Your task to perform on an android device: Show me productivity apps on the Play Store Image 0: 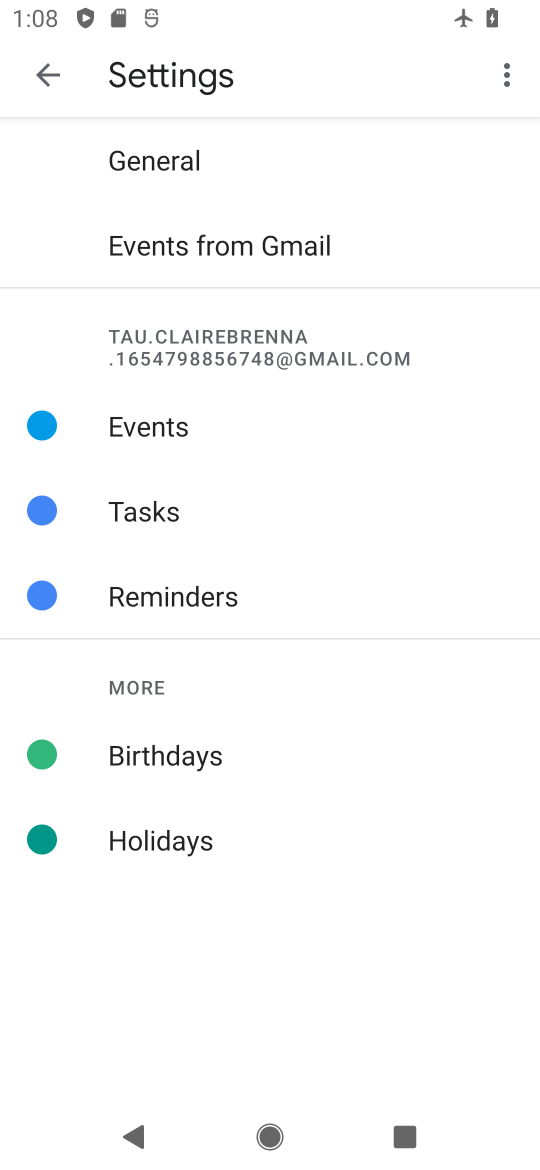
Step 0: press back button
Your task to perform on an android device: Show me productivity apps on the Play Store Image 1: 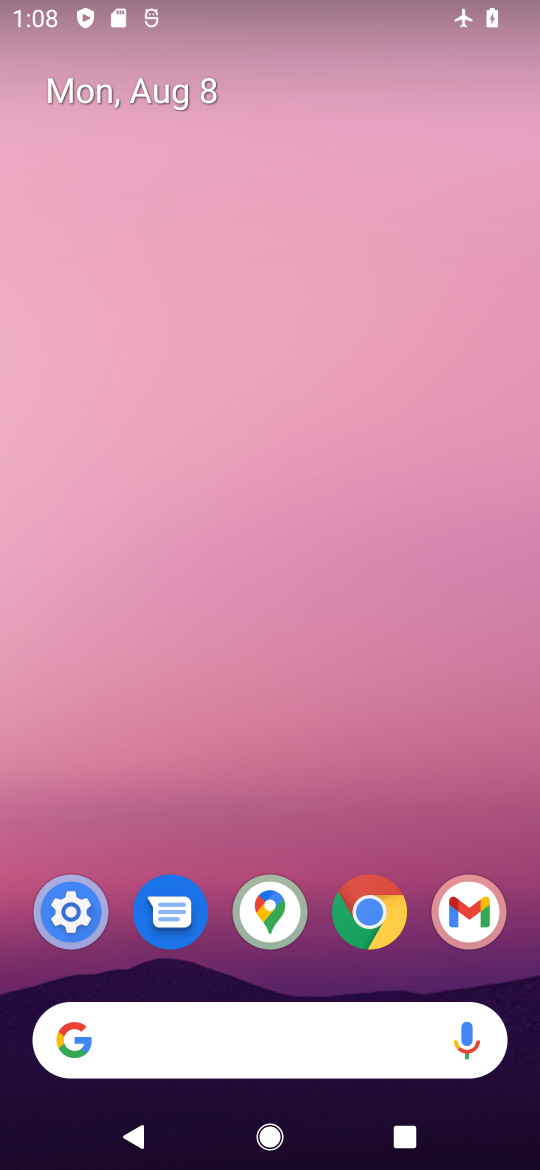
Step 1: drag from (253, 971) to (422, 26)
Your task to perform on an android device: Show me productivity apps on the Play Store Image 2: 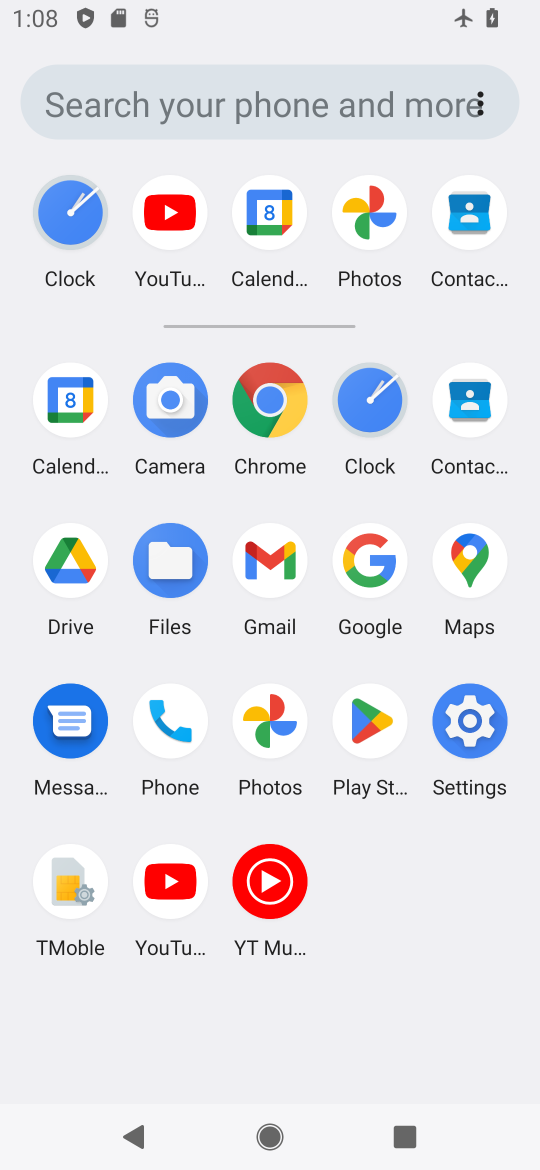
Step 2: click (354, 731)
Your task to perform on an android device: Show me productivity apps on the Play Store Image 3: 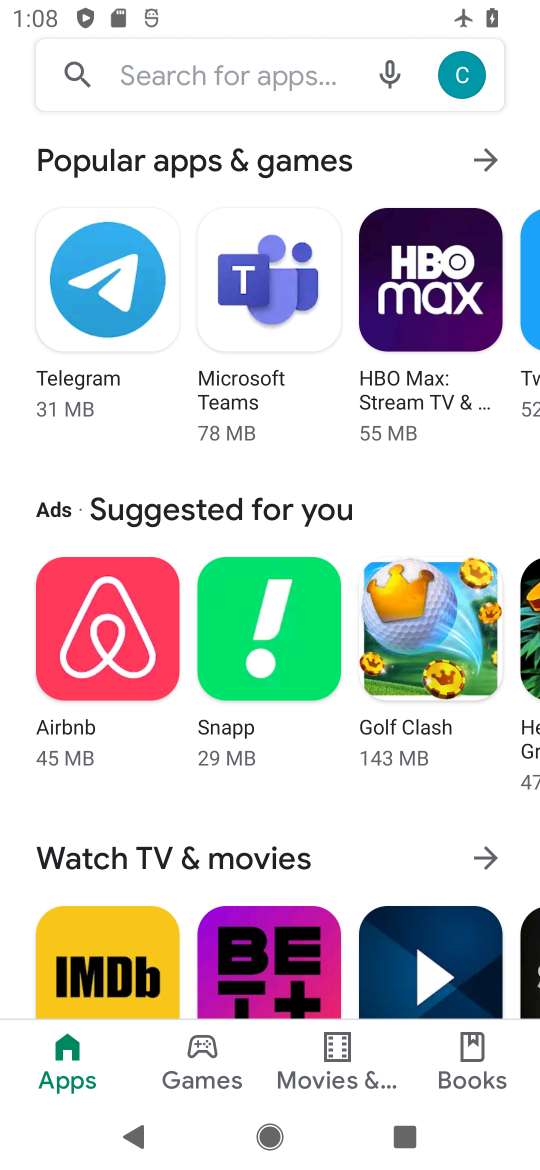
Step 3: click (78, 1058)
Your task to perform on an android device: Show me productivity apps on the Play Store Image 4: 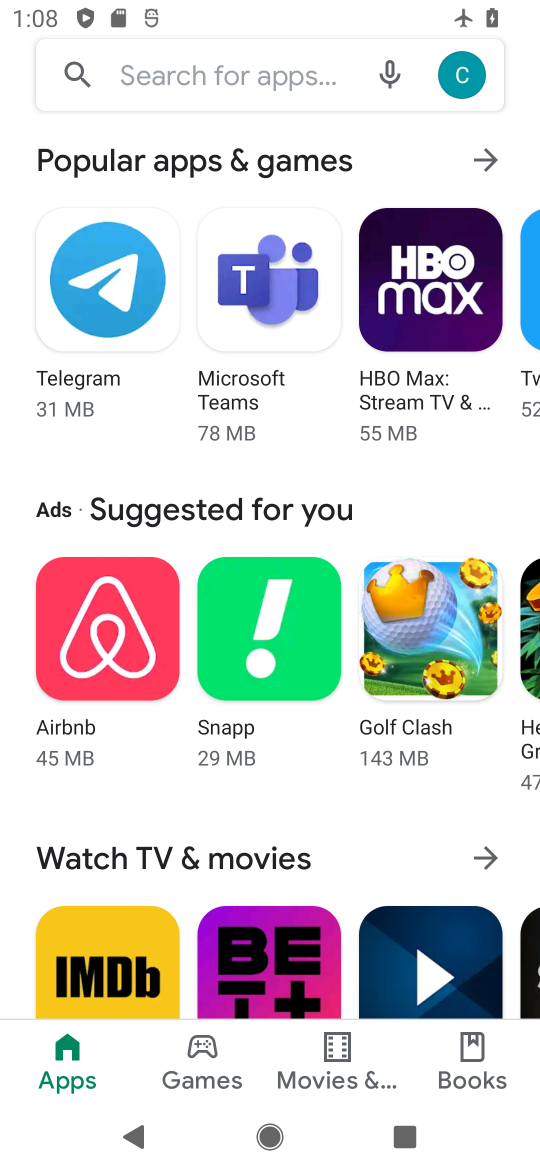
Step 4: drag from (265, 938) to (365, 51)
Your task to perform on an android device: Show me productivity apps on the Play Store Image 5: 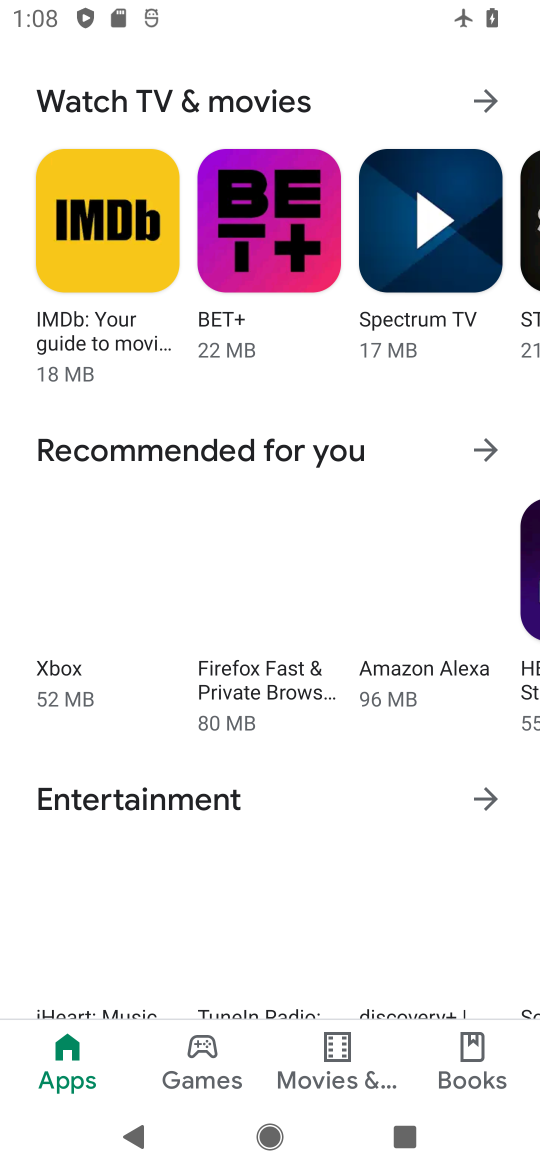
Step 5: drag from (199, 939) to (394, 197)
Your task to perform on an android device: Show me productivity apps on the Play Store Image 6: 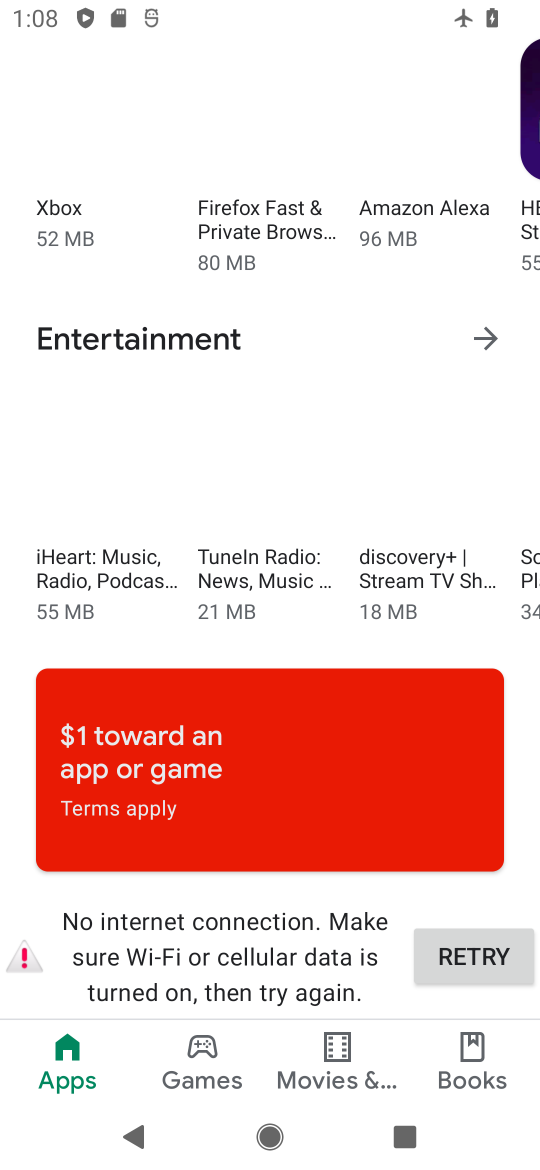
Step 6: drag from (254, 816) to (347, 313)
Your task to perform on an android device: Show me productivity apps on the Play Store Image 7: 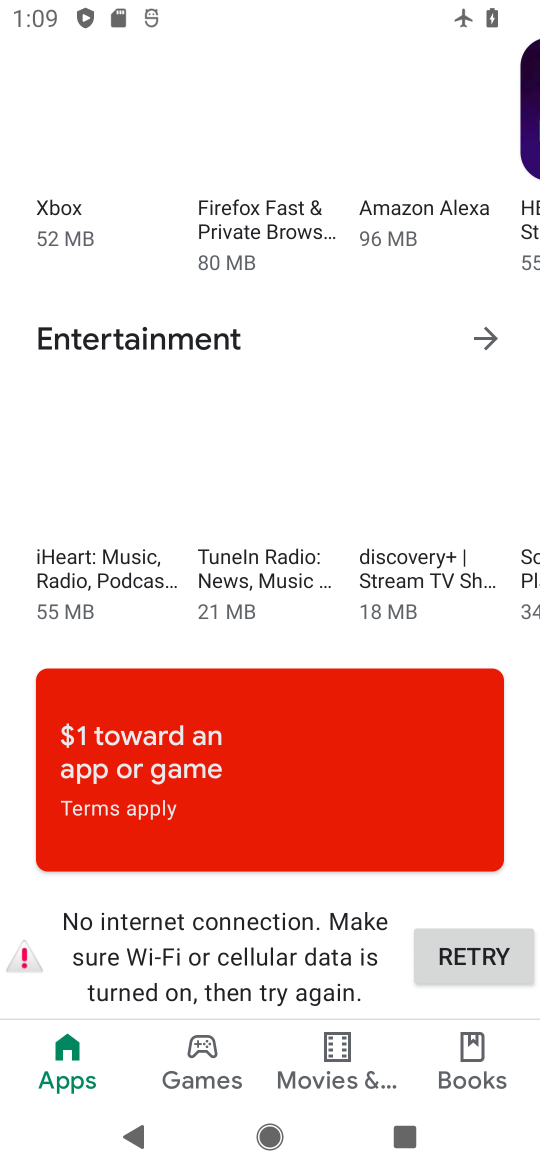
Step 7: drag from (158, 938) to (345, 73)
Your task to perform on an android device: Show me productivity apps on the Play Store Image 8: 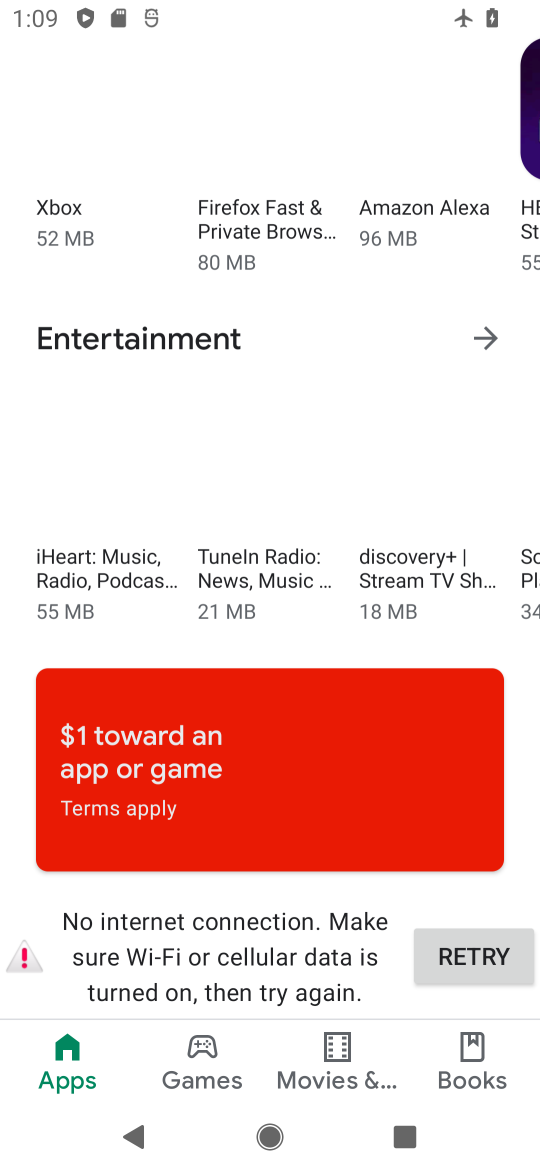
Step 8: drag from (46, 184) to (17, 1028)
Your task to perform on an android device: Show me productivity apps on the Play Store Image 9: 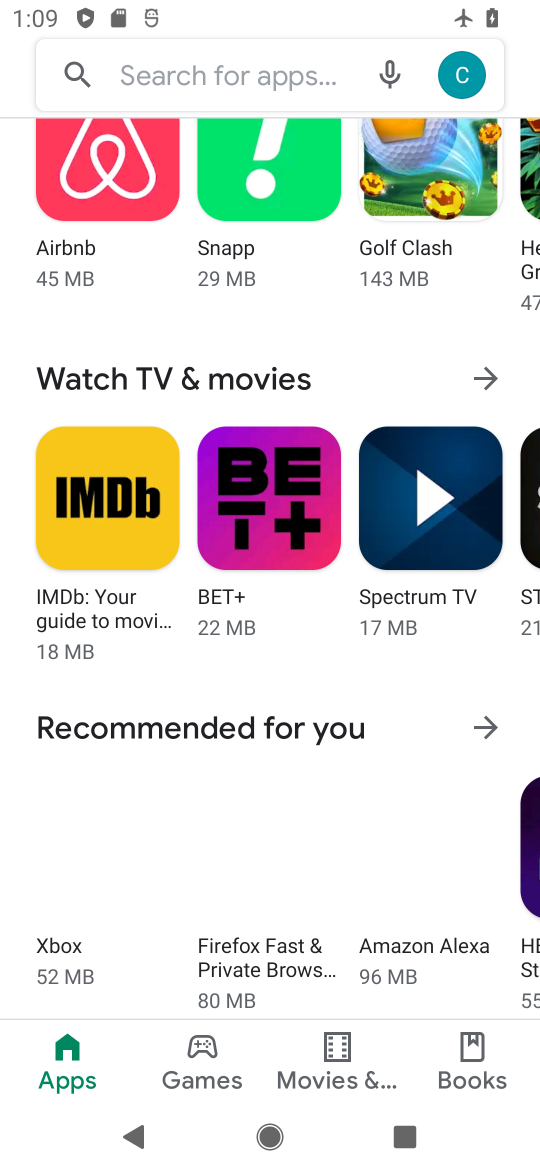
Step 9: drag from (3, 250) to (43, 1027)
Your task to perform on an android device: Show me productivity apps on the Play Store Image 10: 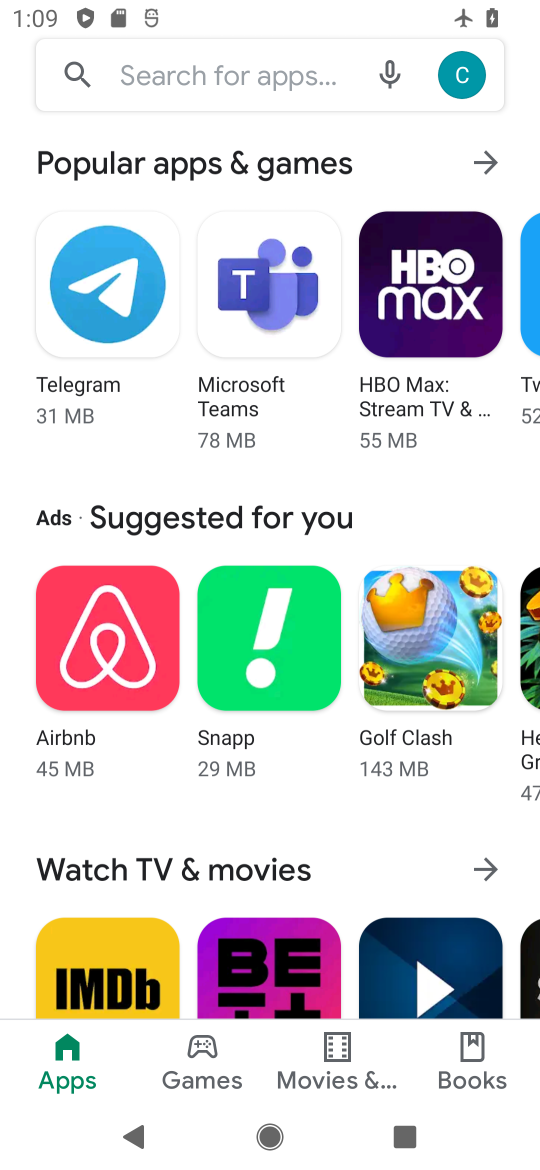
Step 10: drag from (15, 222) to (23, 1022)
Your task to perform on an android device: Show me productivity apps on the Play Store Image 11: 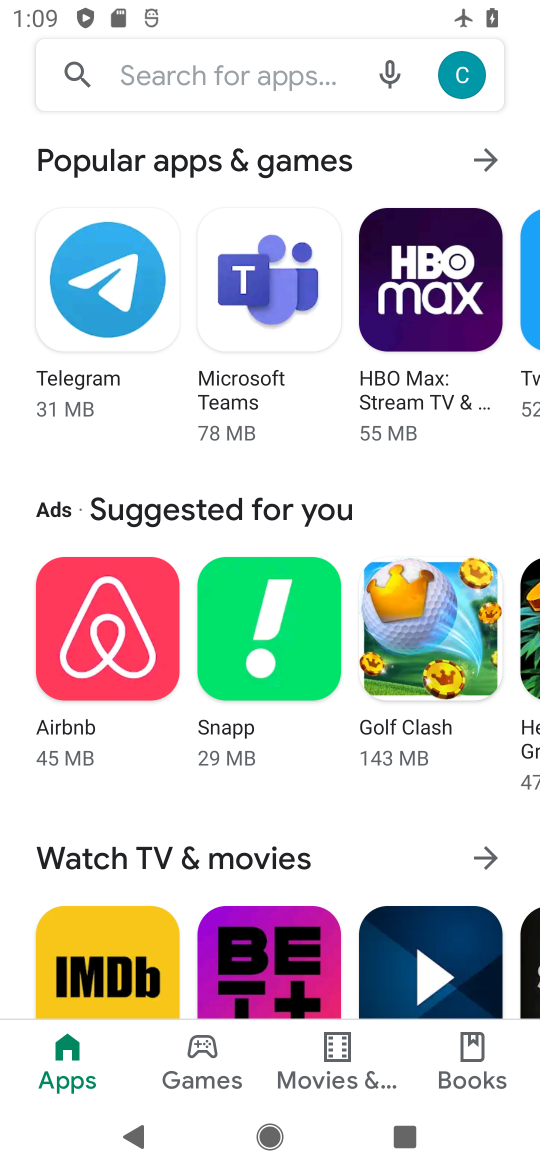
Step 11: click (67, 1080)
Your task to perform on an android device: Show me productivity apps on the Play Store Image 12: 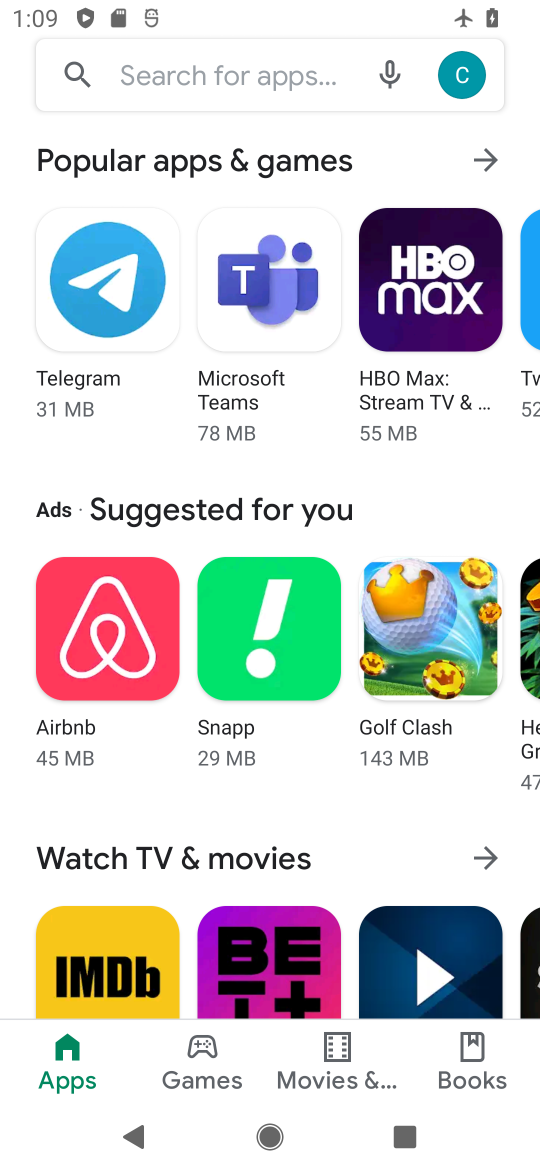
Step 12: drag from (189, 823) to (289, 55)
Your task to perform on an android device: Show me productivity apps on the Play Store Image 13: 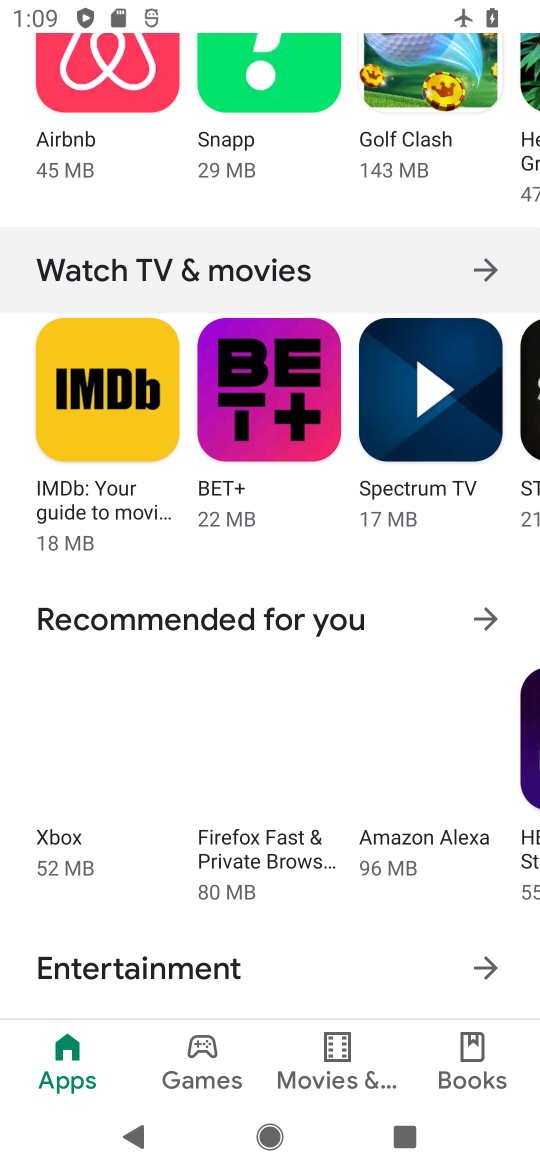
Step 13: drag from (248, 878) to (355, 27)
Your task to perform on an android device: Show me productivity apps on the Play Store Image 14: 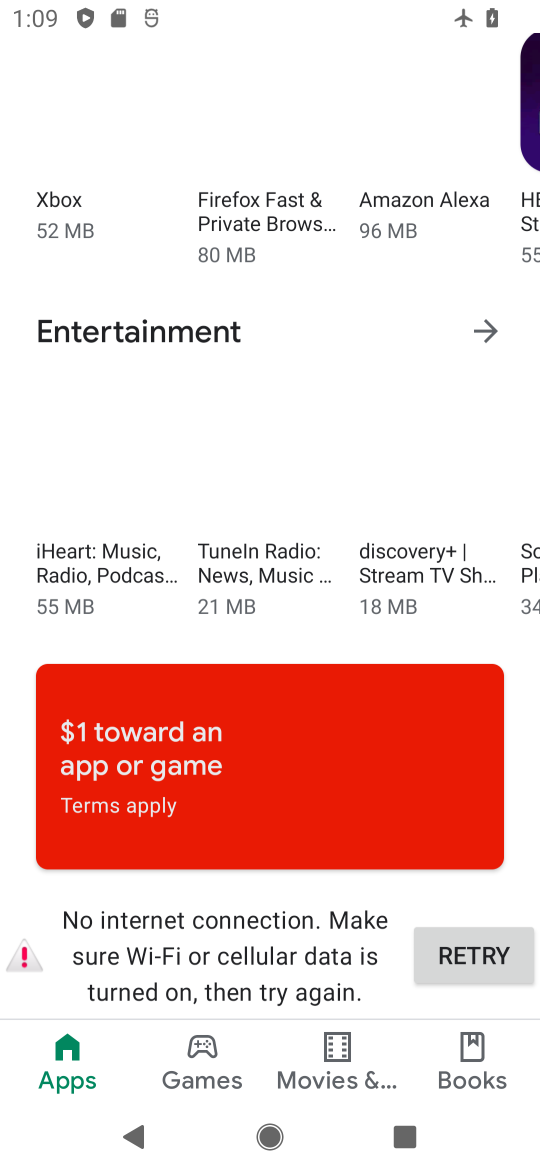
Step 14: drag from (202, 973) to (332, 11)
Your task to perform on an android device: Show me productivity apps on the Play Store Image 15: 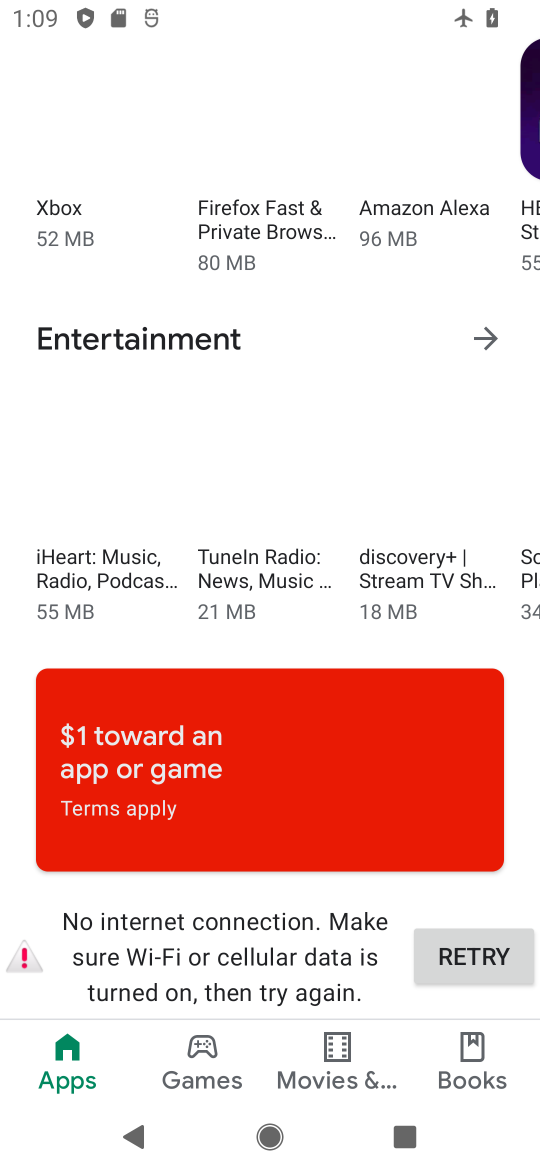
Step 15: drag from (465, 16) to (462, 977)
Your task to perform on an android device: Show me productivity apps on the Play Store Image 16: 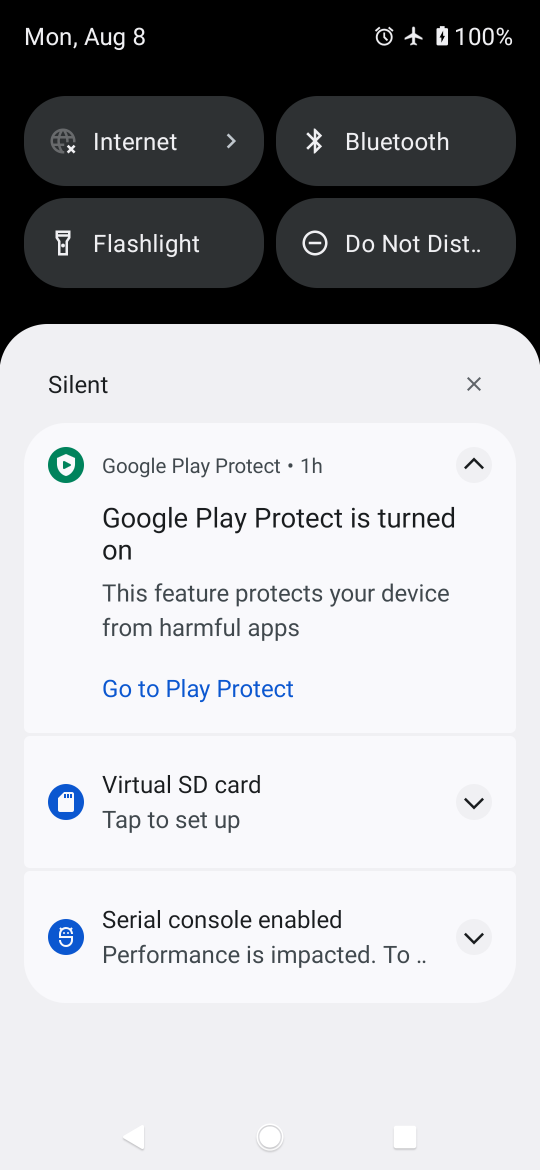
Step 16: drag from (380, 308) to (319, 1143)
Your task to perform on an android device: Show me productivity apps on the Play Store Image 17: 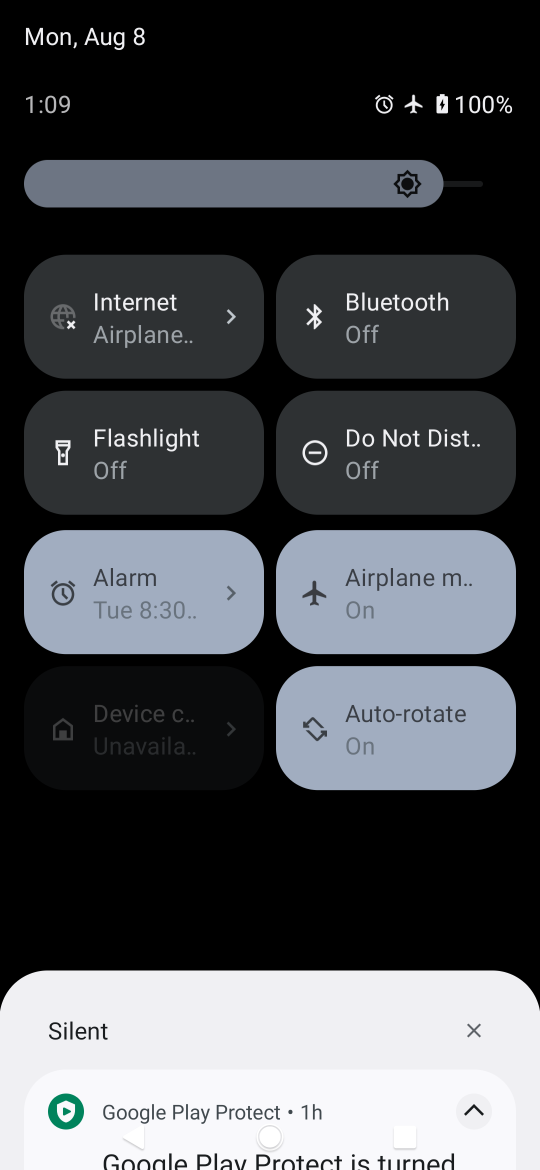
Step 17: click (367, 567)
Your task to perform on an android device: Show me productivity apps on the Play Store Image 18: 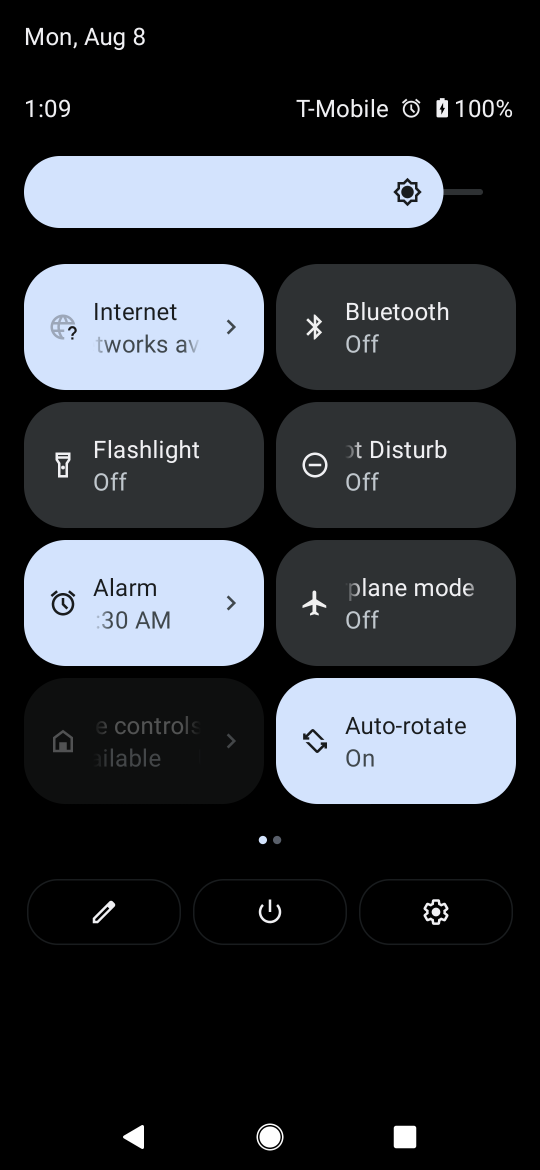
Step 18: drag from (289, 1060) to (435, 43)
Your task to perform on an android device: Show me productivity apps on the Play Store Image 19: 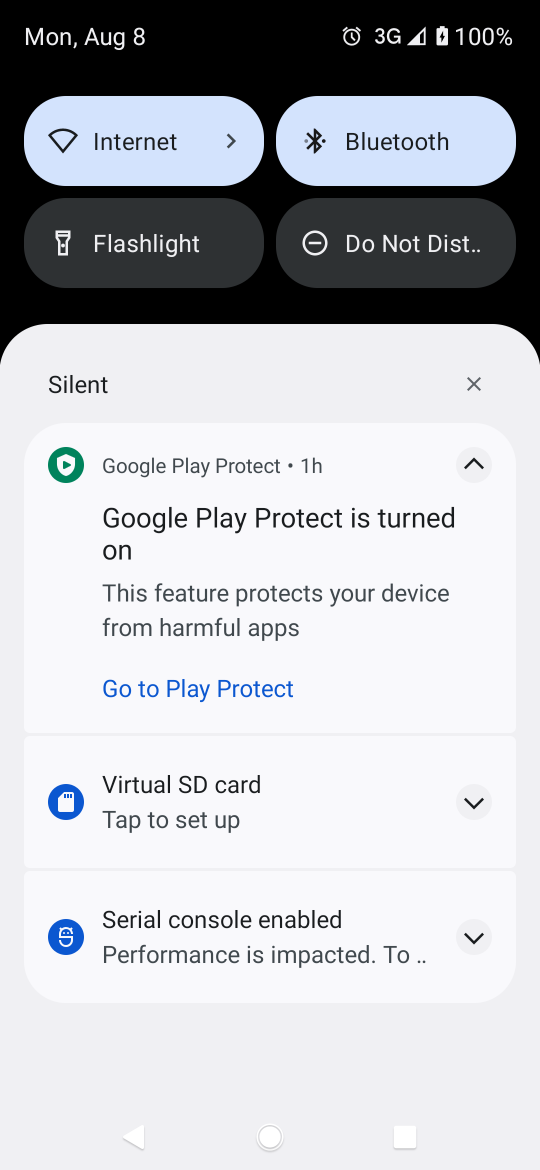
Step 19: drag from (252, 945) to (408, 35)
Your task to perform on an android device: Show me productivity apps on the Play Store Image 20: 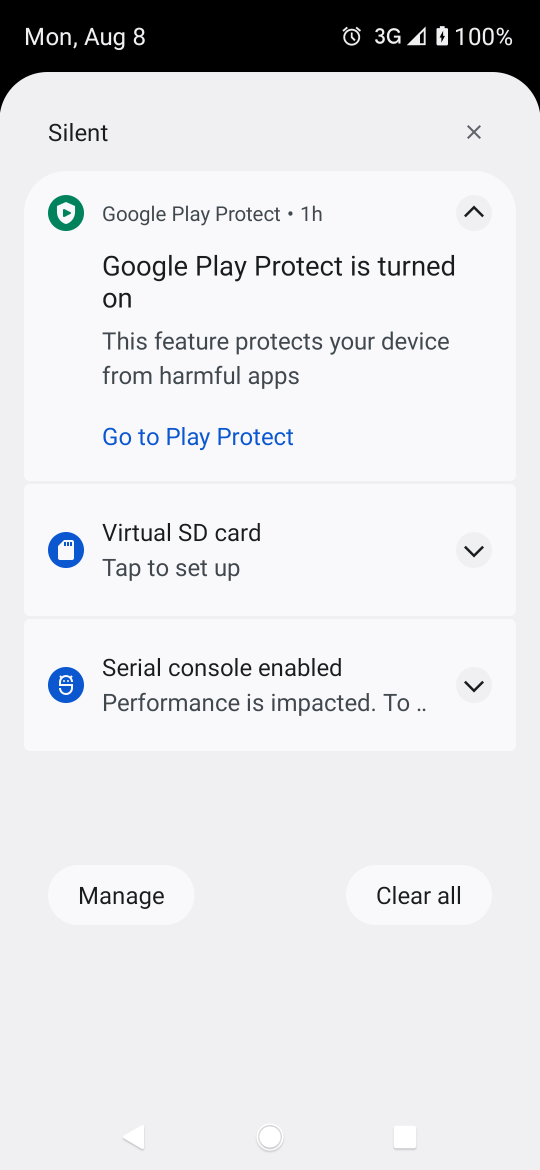
Step 20: press back button
Your task to perform on an android device: Show me productivity apps on the Play Store Image 21: 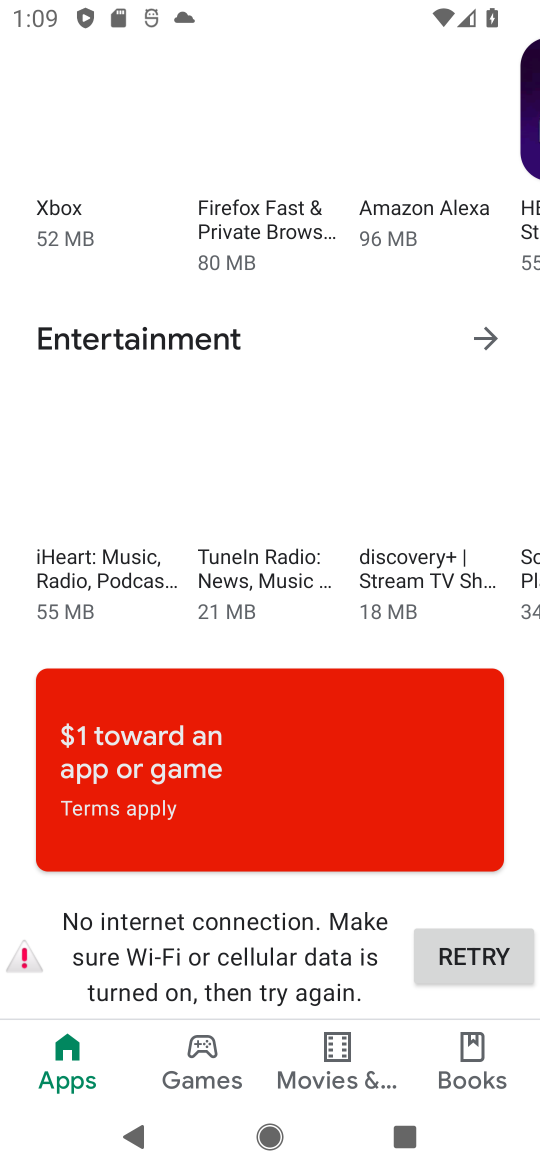
Step 21: click (432, 951)
Your task to perform on an android device: Show me productivity apps on the Play Store Image 22: 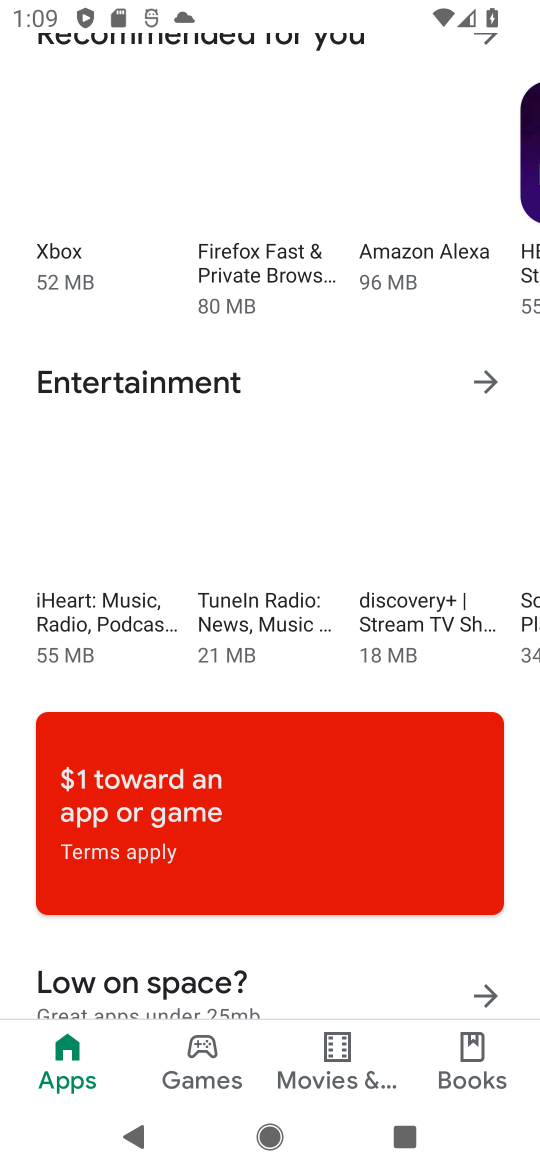
Step 22: drag from (249, 933) to (436, 5)
Your task to perform on an android device: Show me productivity apps on the Play Store Image 23: 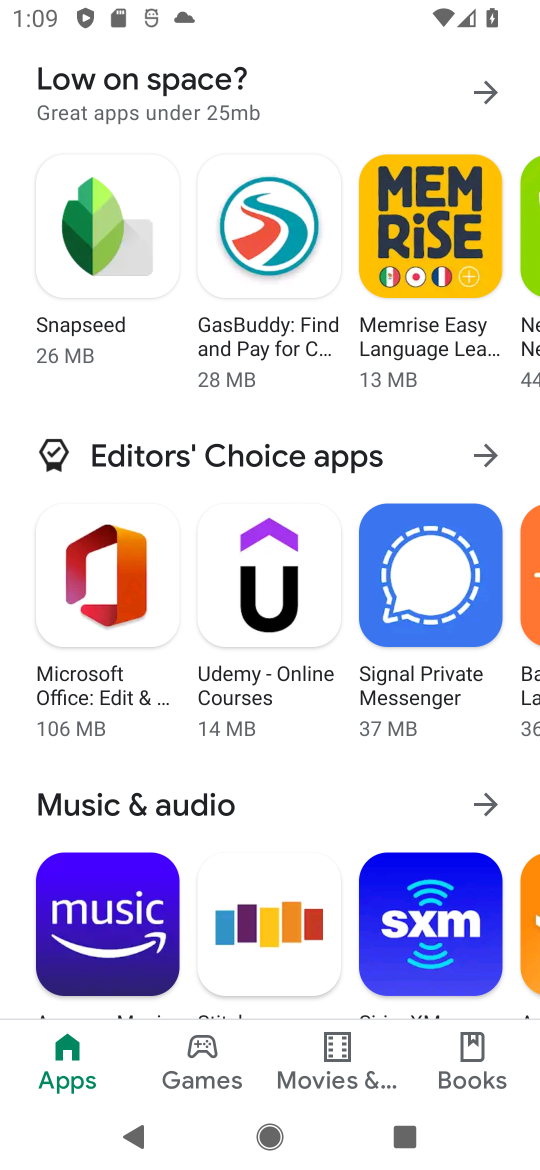
Step 23: drag from (281, 826) to (433, 29)
Your task to perform on an android device: Show me productivity apps on the Play Store Image 24: 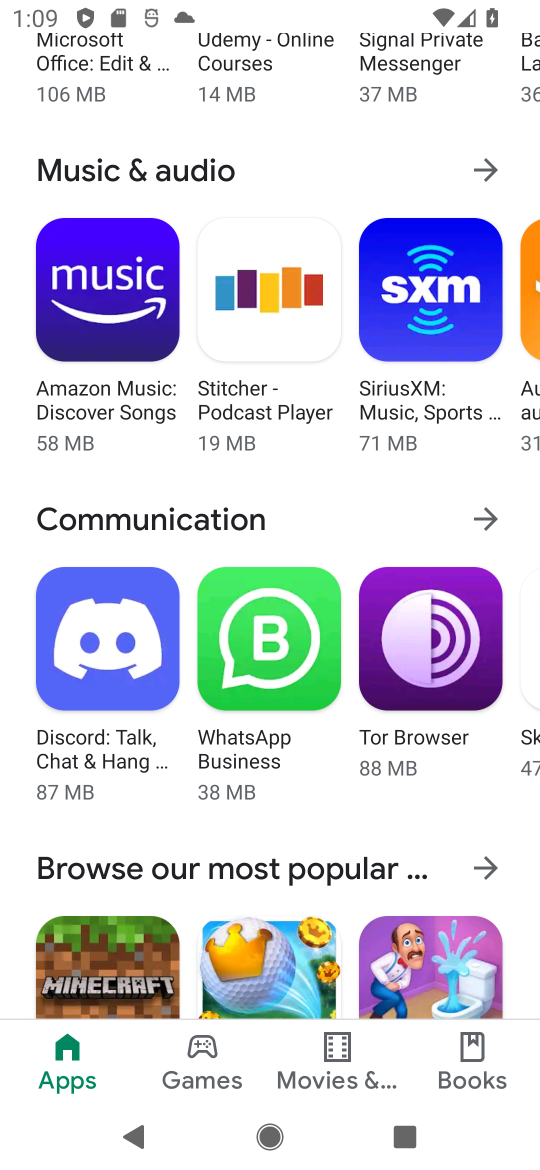
Step 24: drag from (283, 815) to (498, 11)
Your task to perform on an android device: Show me productivity apps on the Play Store Image 25: 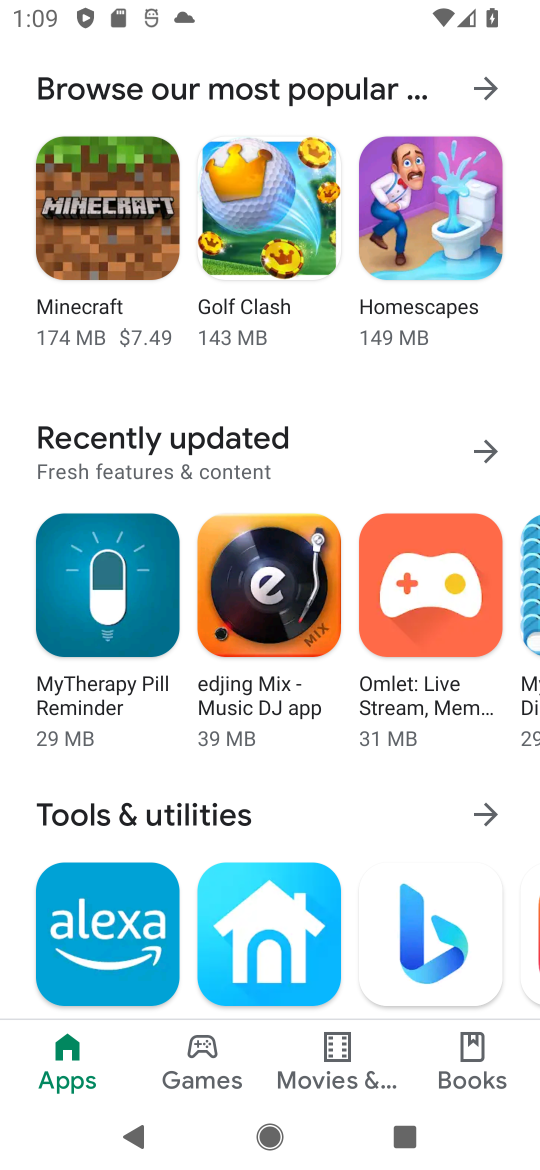
Step 25: drag from (268, 990) to (461, 14)
Your task to perform on an android device: Show me productivity apps on the Play Store Image 26: 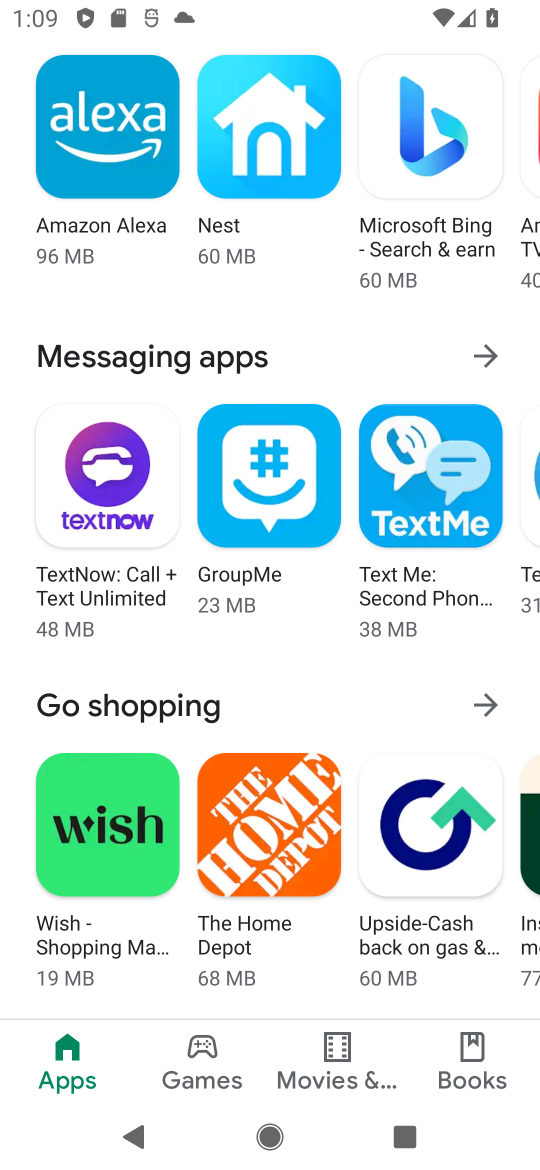
Step 26: drag from (244, 956) to (449, 68)
Your task to perform on an android device: Show me productivity apps on the Play Store Image 27: 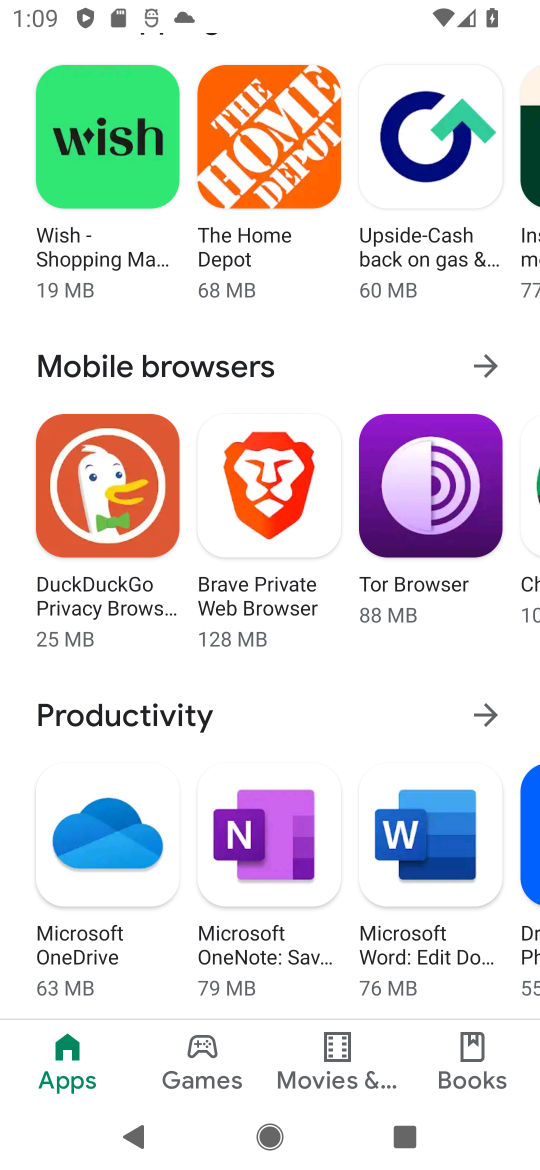
Step 27: click (496, 716)
Your task to perform on an android device: Show me productivity apps on the Play Store Image 28: 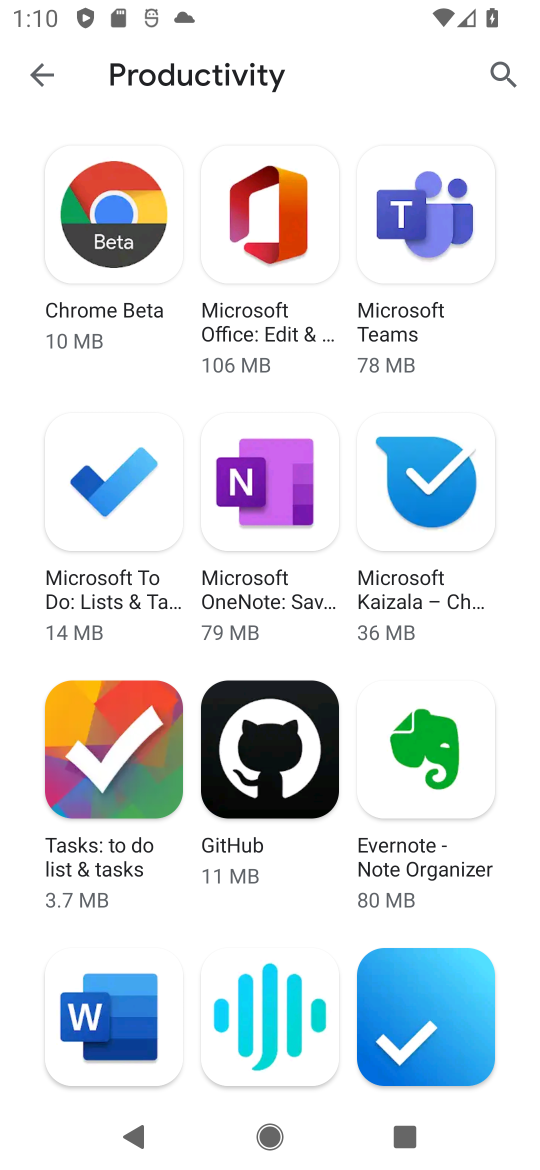
Step 28: task complete